Your task to perform on an android device: turn off notifications in google photos Image 0: 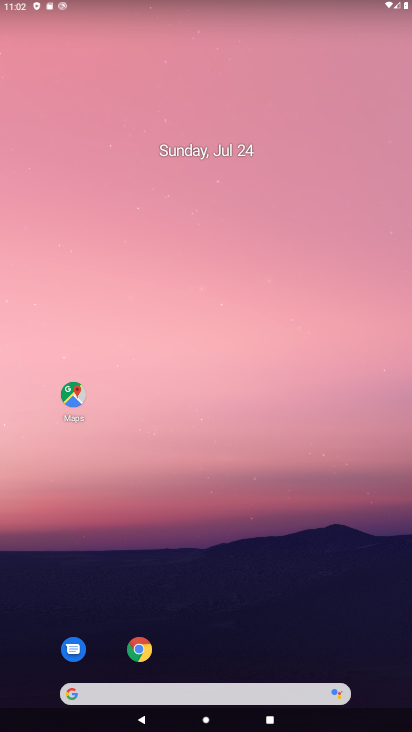
Step 0: drag from (148, 696) to (109, 93)
Your task to perform on an android device: turn off notifications in google photos Image 1: 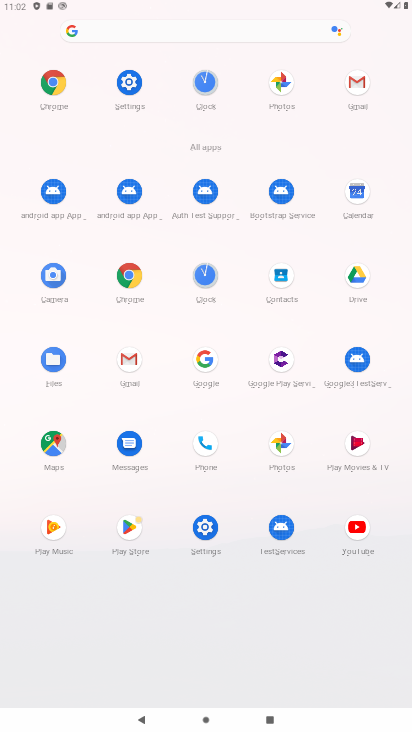
Step 1: click (284, 437)
Your task to perform on an android device: turn off notifications in google photos Image 2: 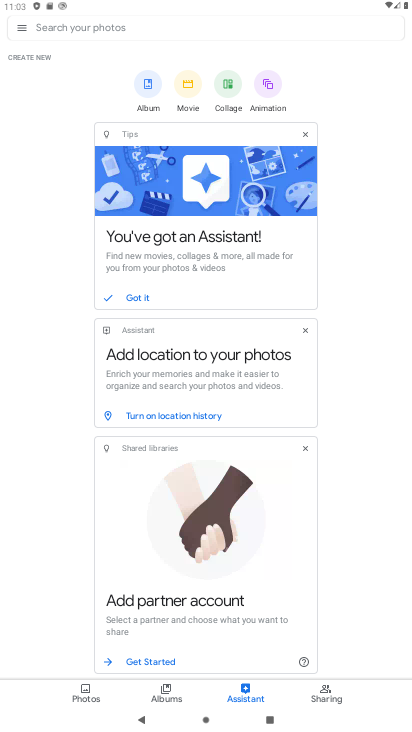
Step 2: click (15, 27)
Your task to perform on an android device: turn off notifications in google photos Image 3: 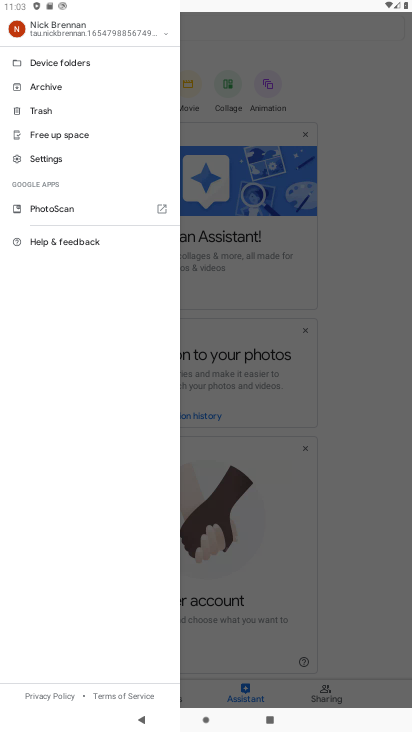
Step 3: click (49, 161)
Your task to perform on an android device: turn off notifications in google photos Image 4: 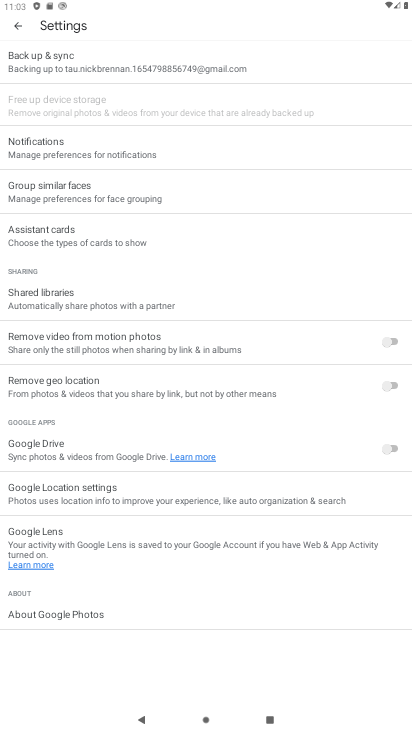
Step 4: click (49, 161)
Your task to perform on an android device: turn off notifications in google photos Image 5: 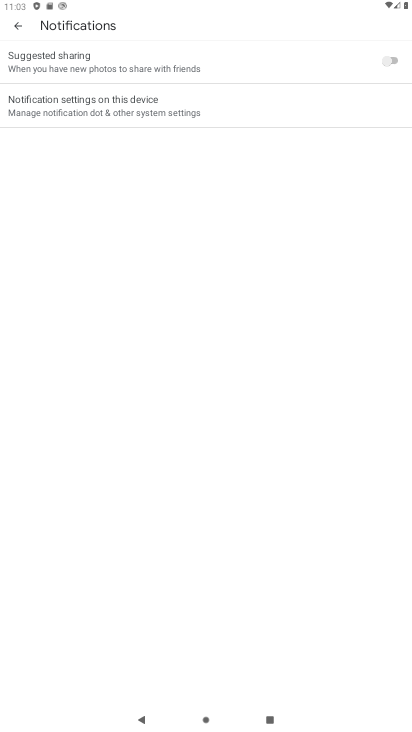
Step 5: click (221, 116)
Your task to perform on an android device: turn off notifications in google photos Image 6: 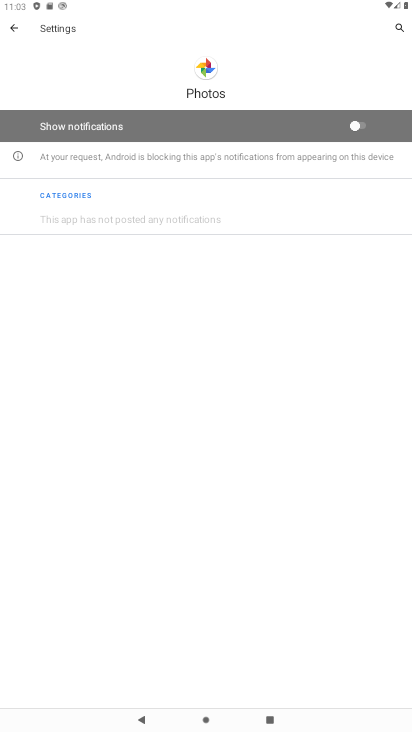
Step 6: task complete